Your task to perform on an android device: turn off location history Image 0: 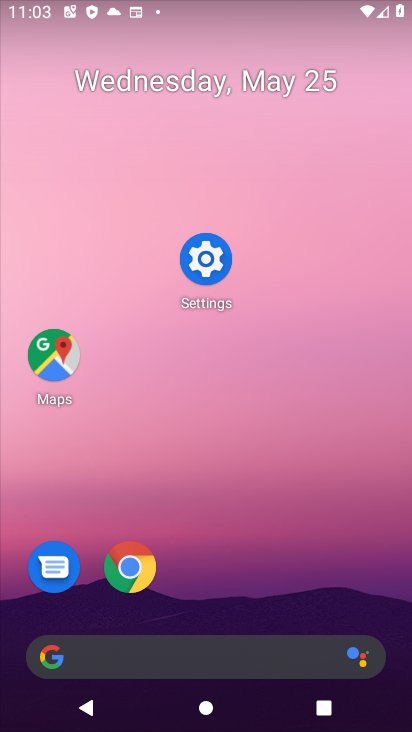
Step 0: drag from (293, 583) to (303, 146)
Your task to perform on an android device: turn off location history Image 1: 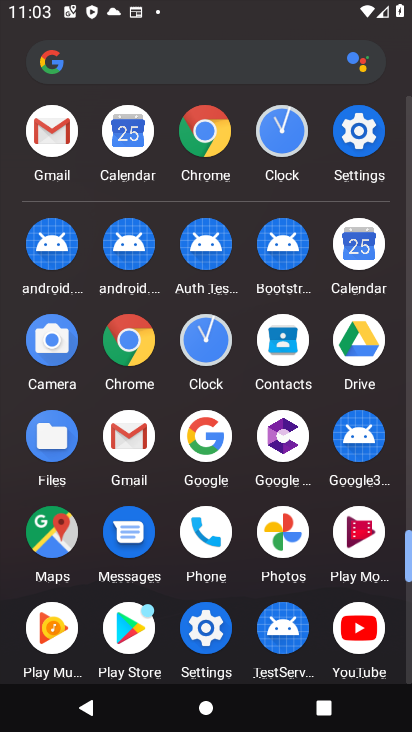
Step 1: click (207, 246)
Your task to perform on an android device: turn off location history Image 2: 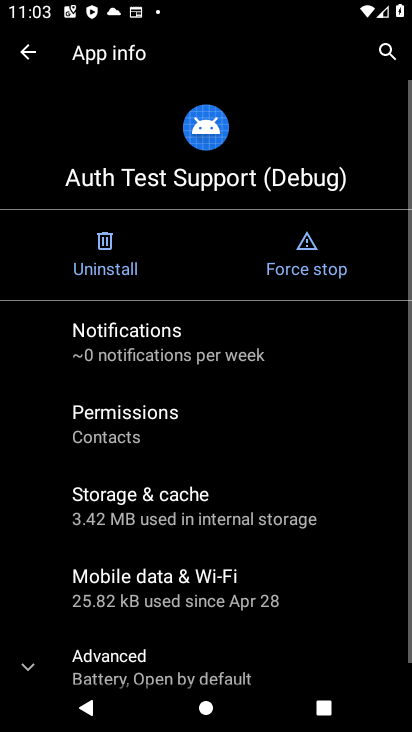
Step 2: click (363, 142)
Your task to perform on an android device: turn off location history Image 3: 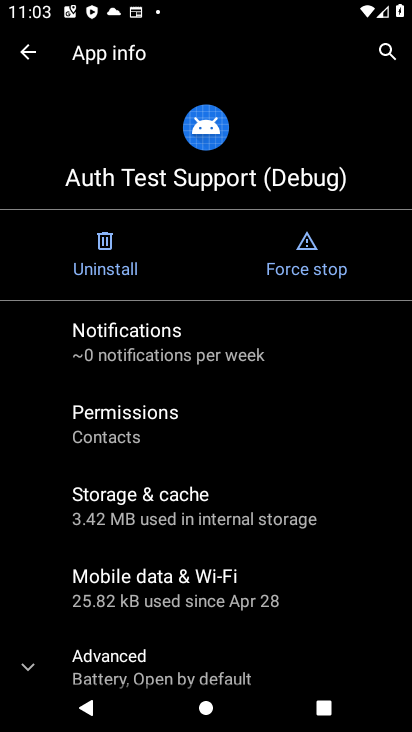
Step 3: task complete